Your task to perform on an android device: find photos in the google photos app Image 0: 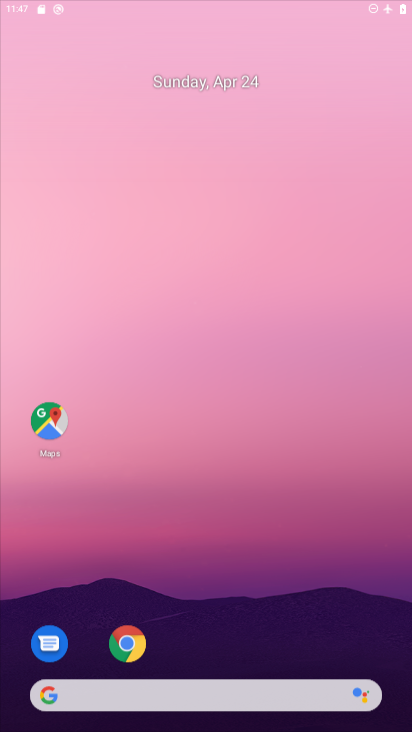
Step 0: click (330, 462)
Your task to perform on an android device: find photos in the google photos app Image 1: 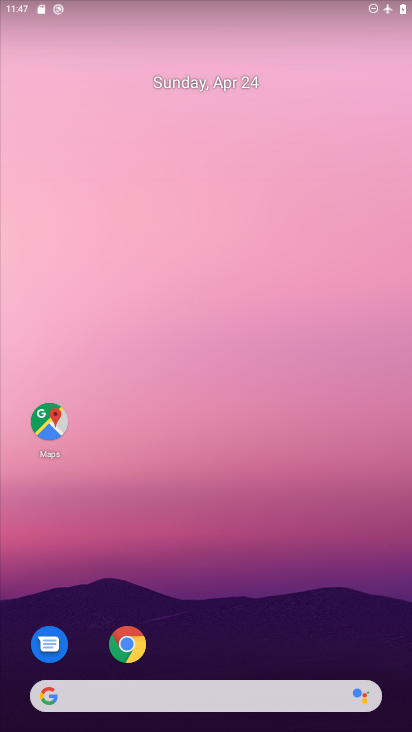
Step 1: drag from (204, 641) to (327, 3)
Your task to perform on an android device: find photos in the google photos app Image 2: 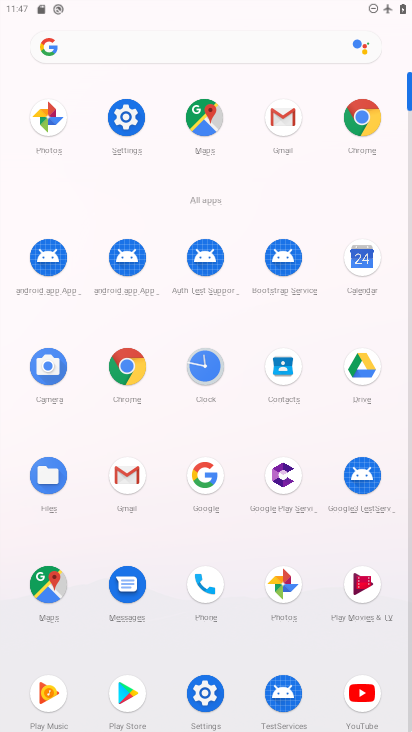
Step 2: click (287, 584)
Your task to perform on an android device: find photos in the google photos app Image 3: 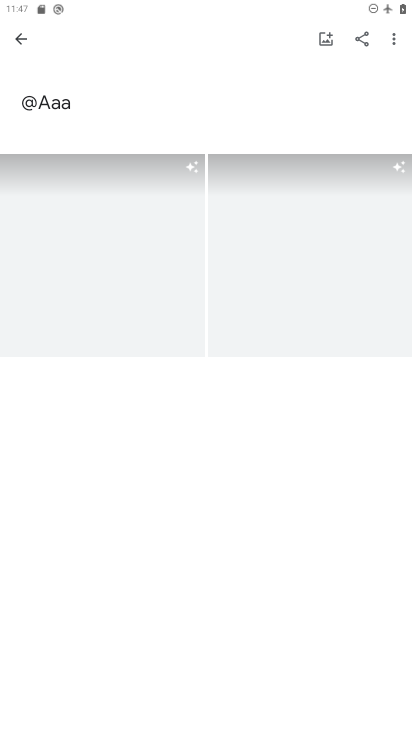
Step 3: click (23, 42)
Your task to perform on an android device: find photos in the google photos app Image 4: 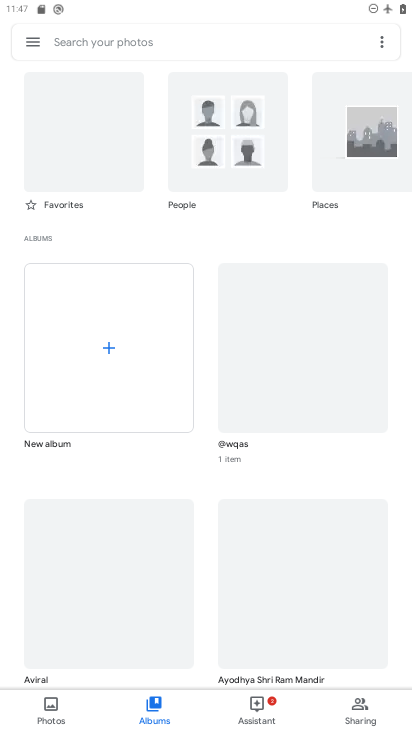
Step 4: click (55, 708)
Your task to perform on an android device: find photos in the google photos app Image 5: 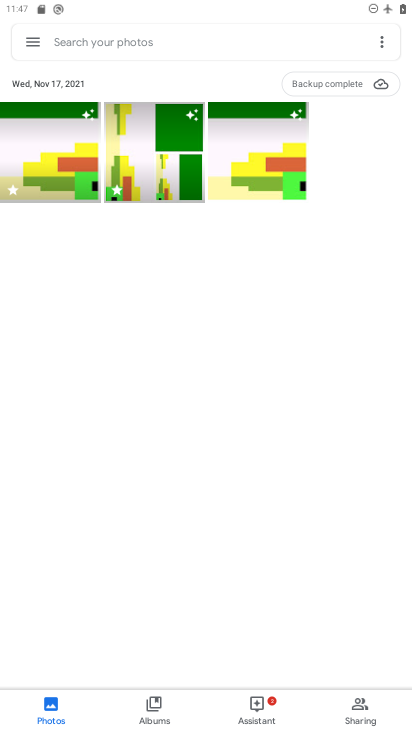
Step 5: click (54, 144)
Your task to perform on an android device: find photos in the google photos app Image 6: 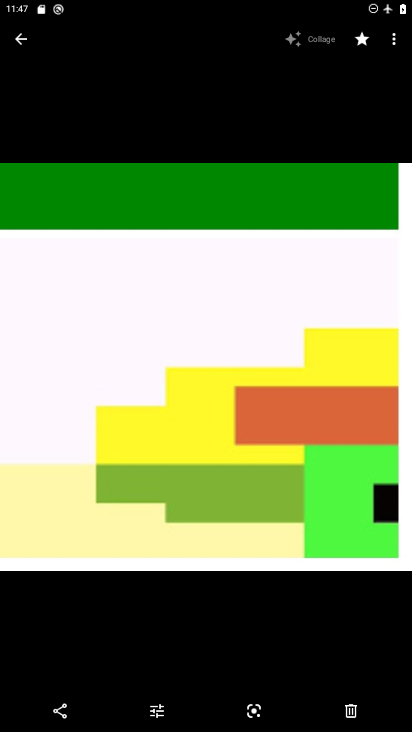
Step 6: task complete